Your task to perform on an android device: turn off picture-in-picture Image 0: 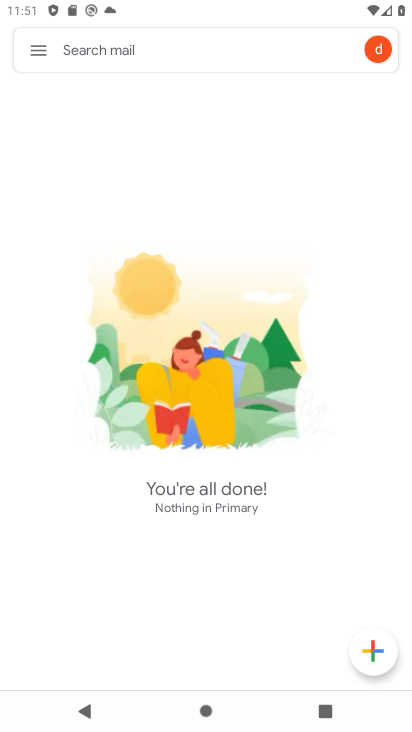
Step 0: press home button
Your task to perform on an android device: turn off picture-in-picture Image 1: 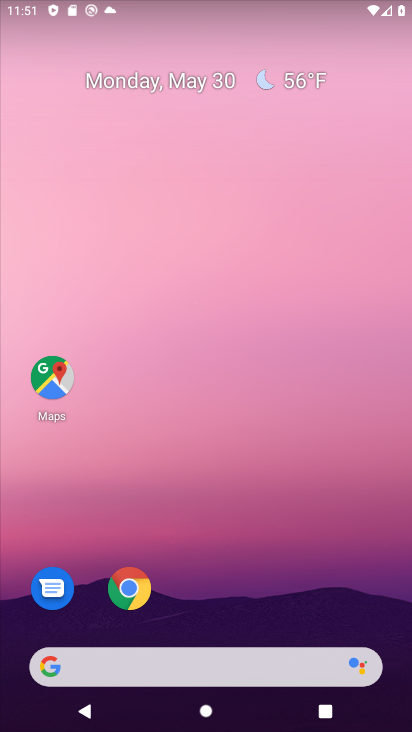
Step 1: drag from (206, 604) to (214, 74)
Your task to perform on an android device: turn off picture-in-picture Image 2: 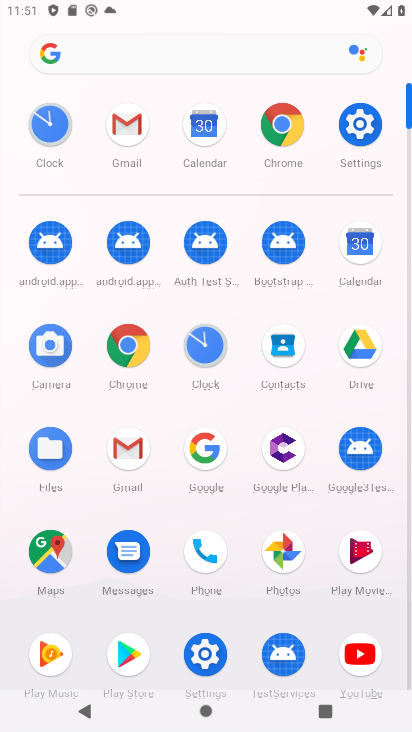
Step 2: click (208, 658)
Your task to perform on an android device: turn off picture-in-picture Image 3: 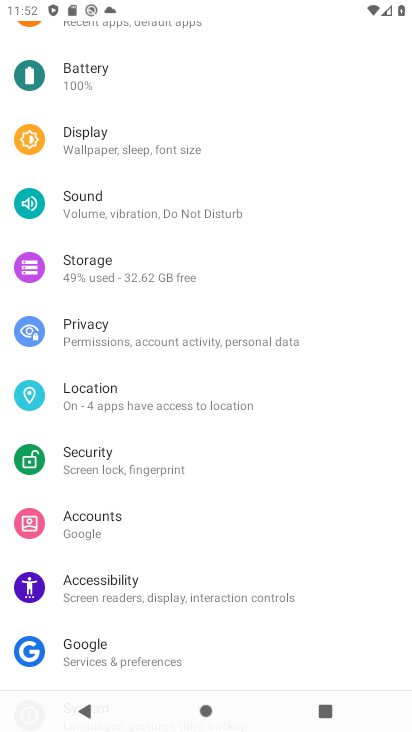
Step 3: drag from (104, 204) to (119, 551)
Your task to perform on an android device: turn off picture-in-picture Image 4: 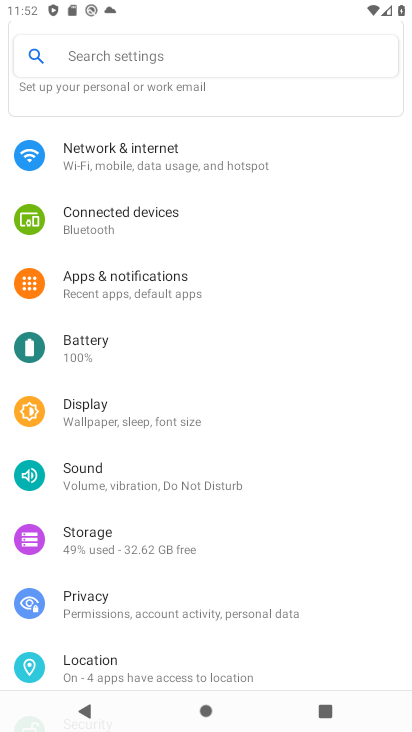
Step 4: click (105, 289)
Your task to perform on an android device: turn off picture-in-picture Image 5: 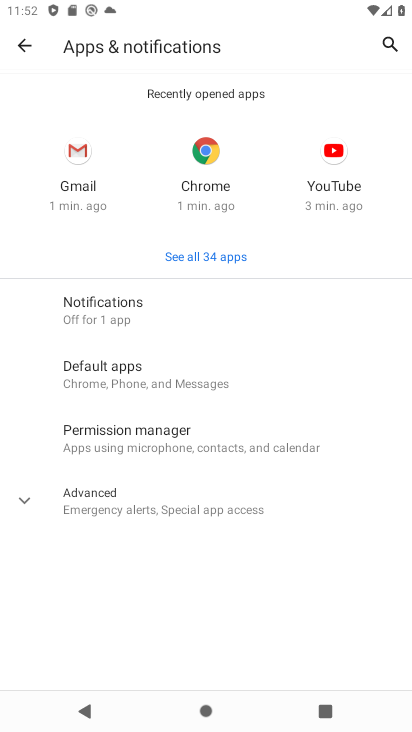
Step 5: click (154, 503)
Your task to perform on an android device: turn off picture-in-picture Image 6: 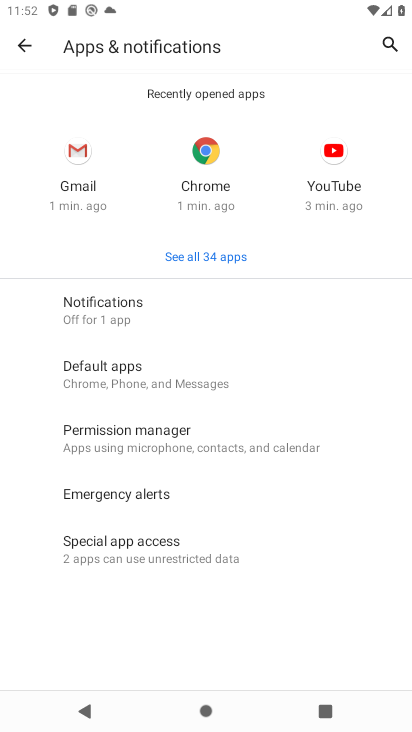
Step 6: click (117, 558)
Your task to perform on an android device: turn off picture-in-picture Image 7: 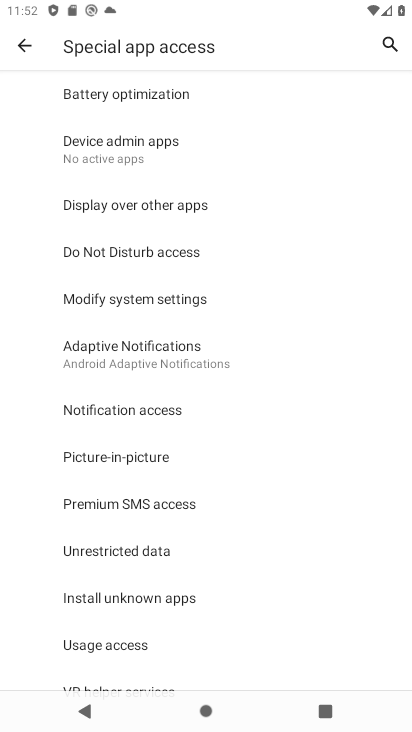
Step 7: click (143, 463)
Your task to perform on an android device: turn off picture-in-picture Image 8: 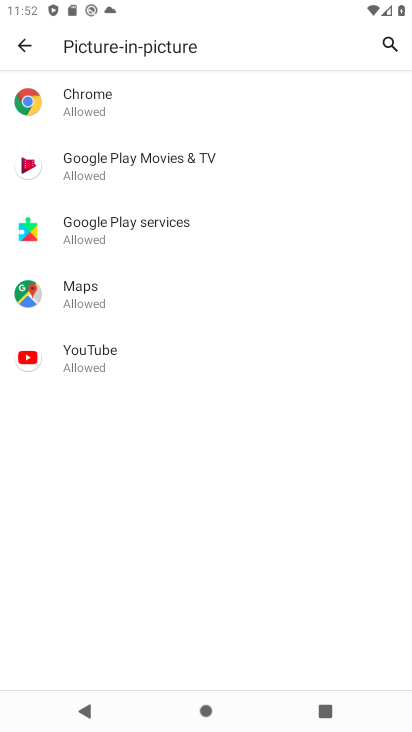
Step 8: click (85, 113)
Your task to perform on an android device: turn off picture-in-picture Image 9: 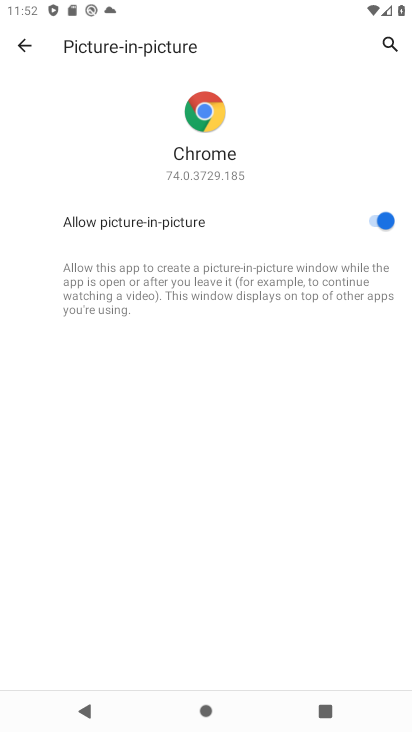
Step 9: click (371, 224)
Your task to perform on an android device: turn off picture-in-picture Image 10: 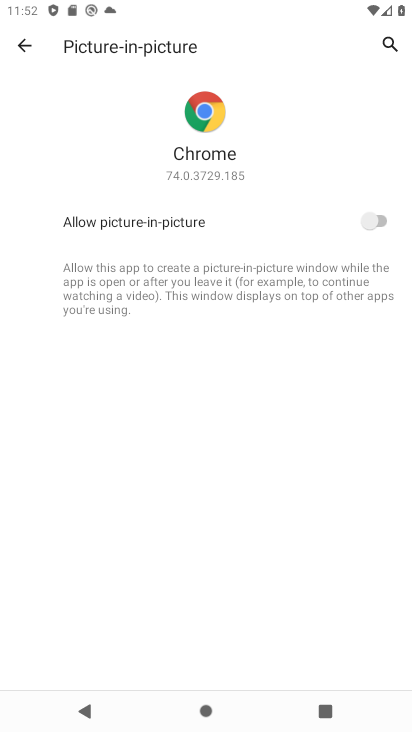
Step 10: task complete